Your task to perform on an android device: Open Chrome and go to the settings page Image 0: 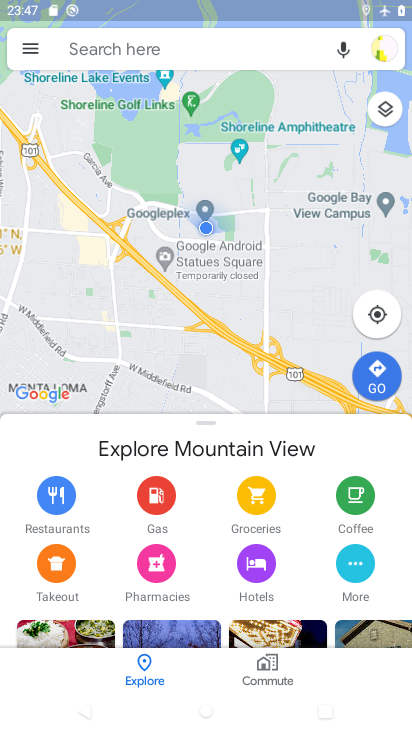
Step 0: press home button
Your task to perform on an android device: Open Chrome and go to the settings page Image 1: 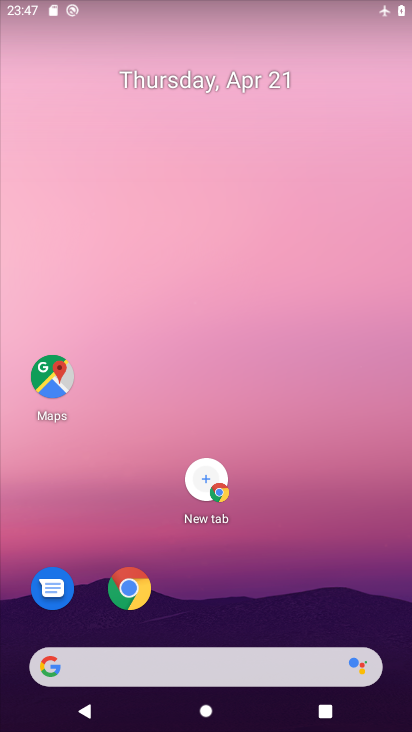
Step 1: click (135, 588)
Your task to perform on an android device: Open Chrome and go to the settings page Image 2: 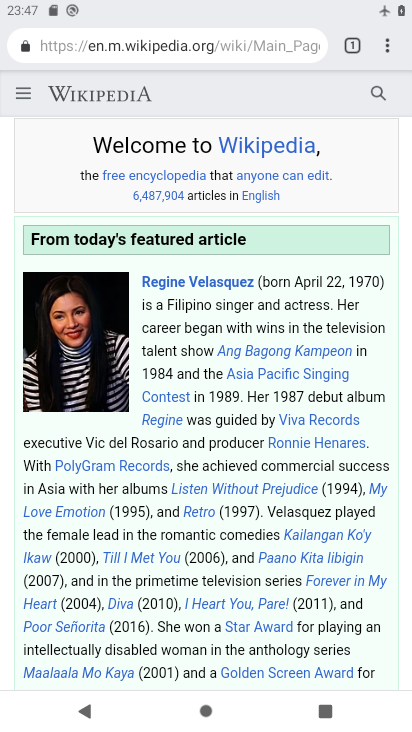
Step 2: click (381, 40)
Your task to perform on an android device: Open Chrome and go to the settings page Image 3: 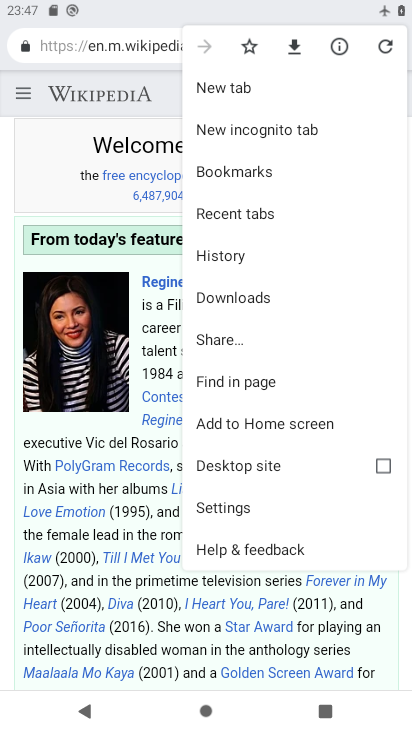
Step 3: click (226, 503)
Your task to perform on an android device: Open Chrome and go to the settings page Image 4: 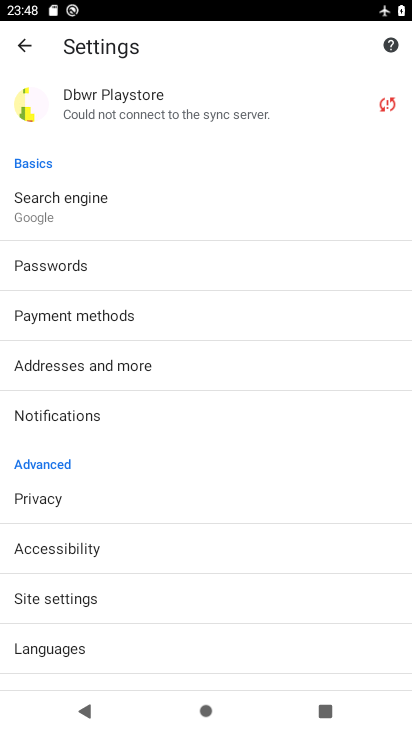
Step 4: task complete